Your task to perform on an android device: Open display settings Image 0: 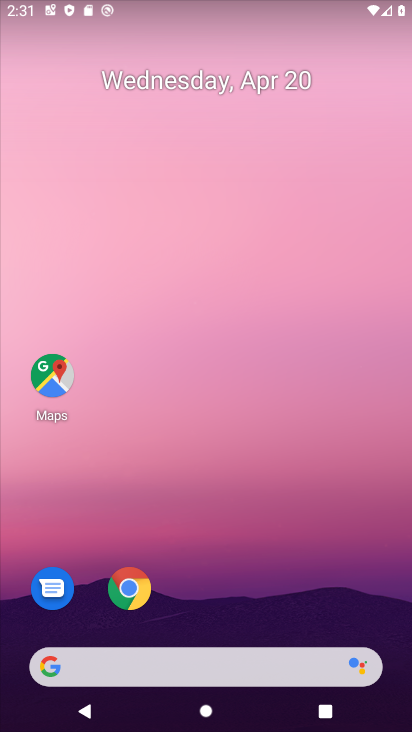
Step 0: drag from (310, 599) to (319, 73)
Your task to perform on an android device: Open display settings Image 1: 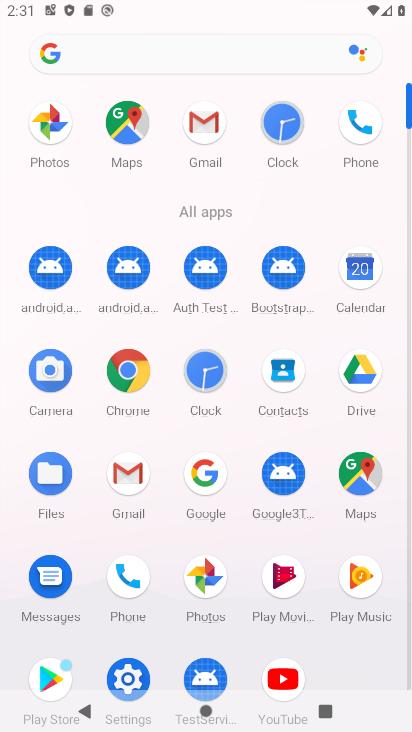
Step 1: drag from (382, 629) to (391, 396)
Your task to perform on an android device: Open display settings Image 2: 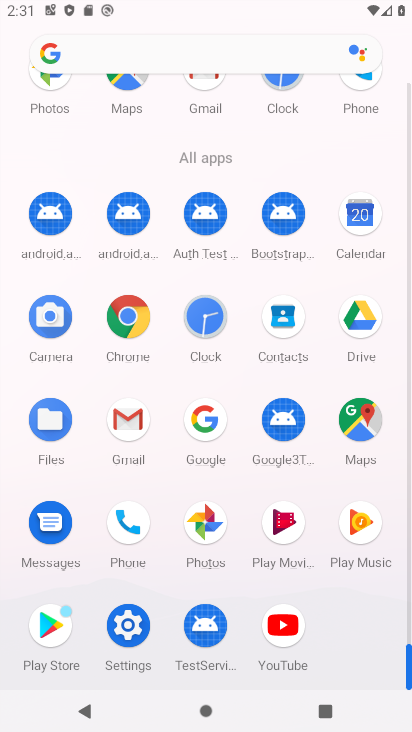
Step 2: click (132, 634)
Your task to perform on an android device: Open display settings Image 3: 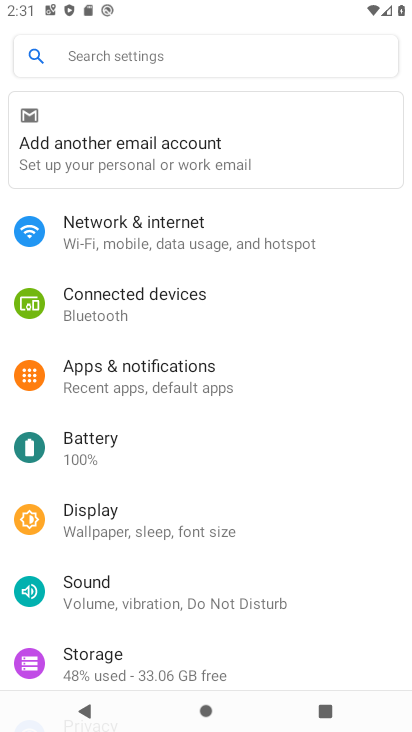
Step 3: drag from (339, 526) to (351, 334)
Your task to perform on an android device: Open display settings Image 4: 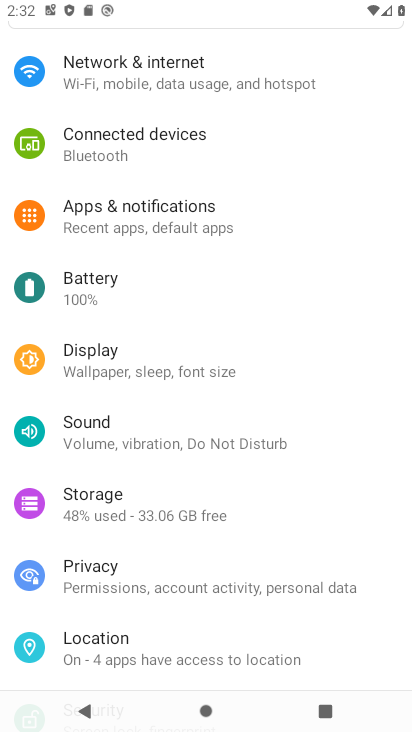
Step 4: drag from (336, 520) to (337, 345)
Your task to perform on an android device: Open display settings Image 5: 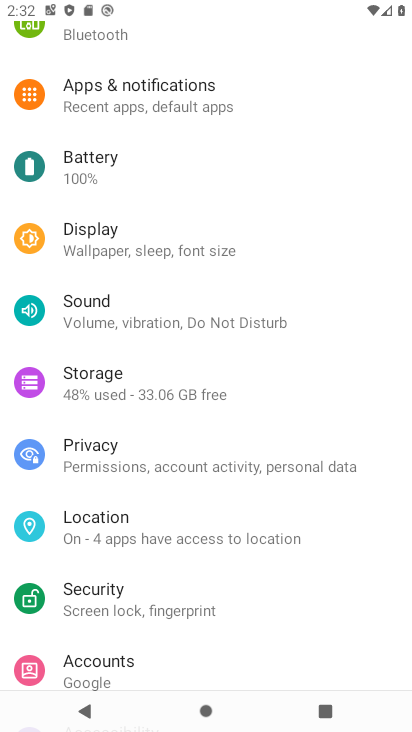
Step 5: drag from (335, 590) to (363, 375)
Your task to perform on an android device: Open display settings Image 6: 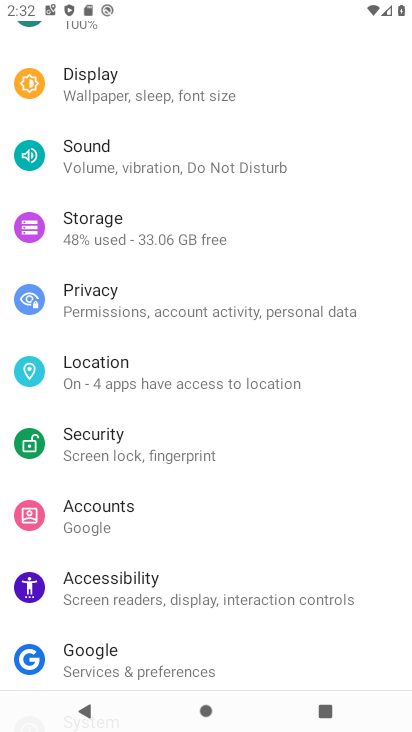
Step 6: drag from (380, 257) to (370, 515)
Your task to perform on an android device: Open display settings Image 7: 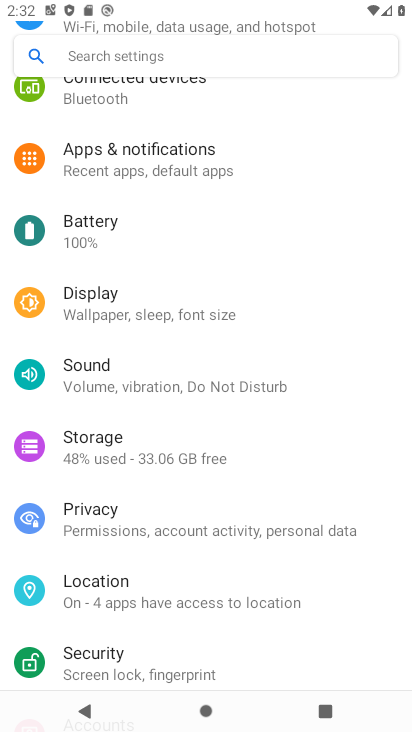
Step 7: drag from (371, 277) to (372, 481)
Your task to perform on an android device: Open display settings Image 8: 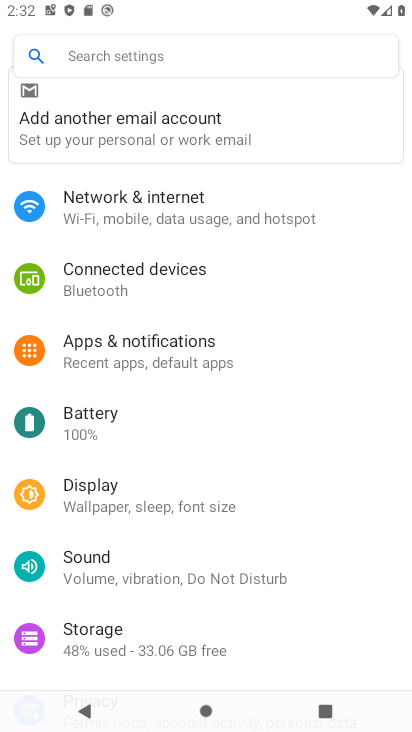
Step 8: drag from (365, 228) to (349, 401)
Your task to perform on an android device: Open display settings Image 9: 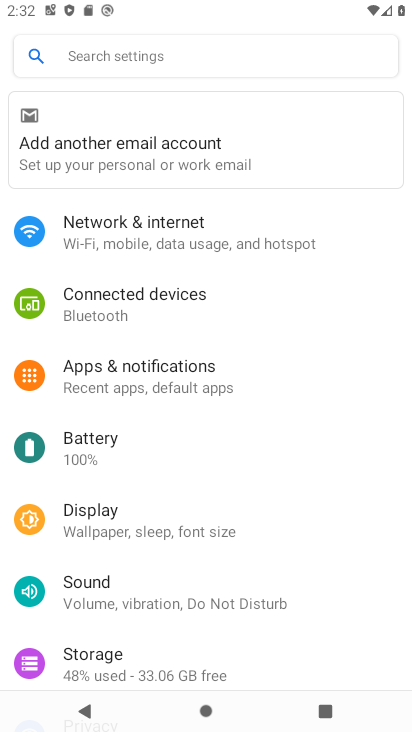
Step 9: click (174, 525)
Your task to perform on an android device: Open display settings Image 10: 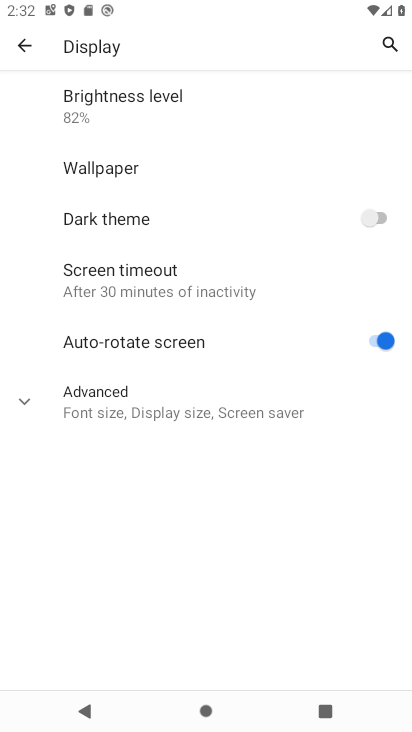
Step 10: click (237, 413)
Your task to perform on an android device: Open display settings Image 11: 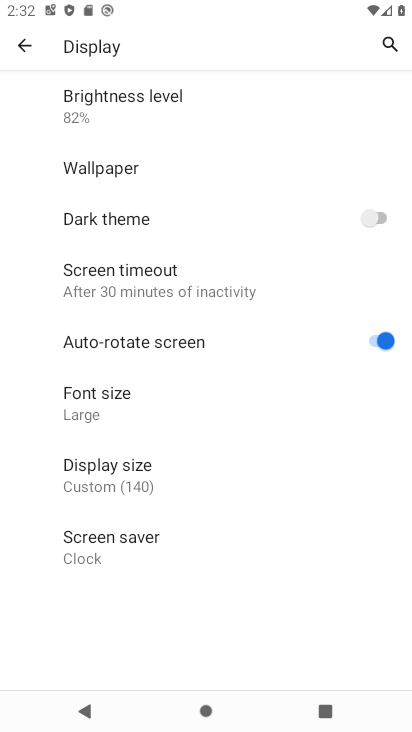
Step 11: task complete